Your task to perform on an android device: toggle priority inbox in the gmail app Image 0: 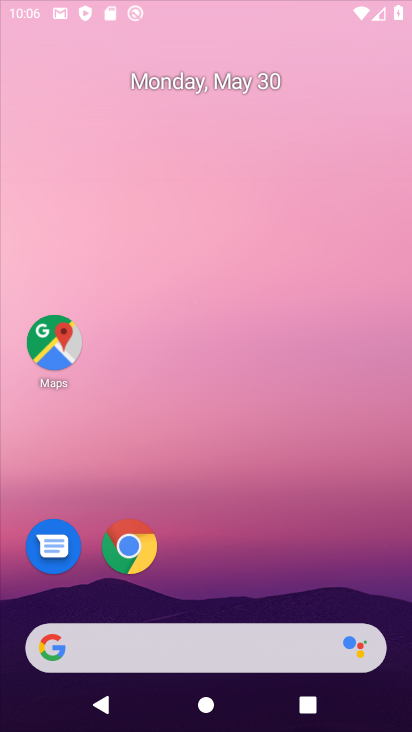
Step 0: press home button
Your task to perform on an android device: toggle priority inbox in the gmail app Image 1: 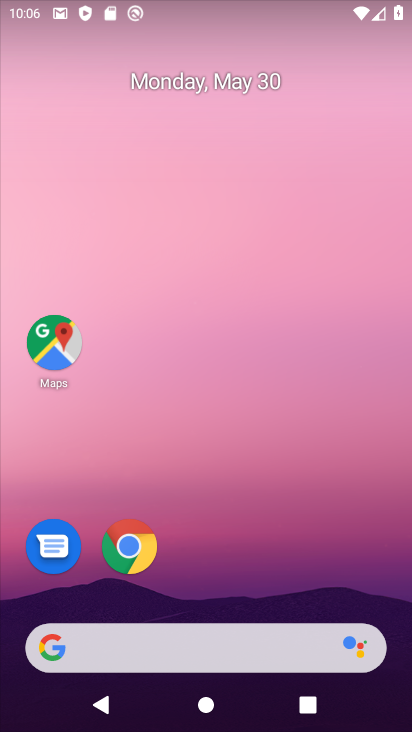
Step 1: drag from (216, 587) to (193, 47)
Your task to perform on an android device: toggle priority inbox in the gmail app Image 2: 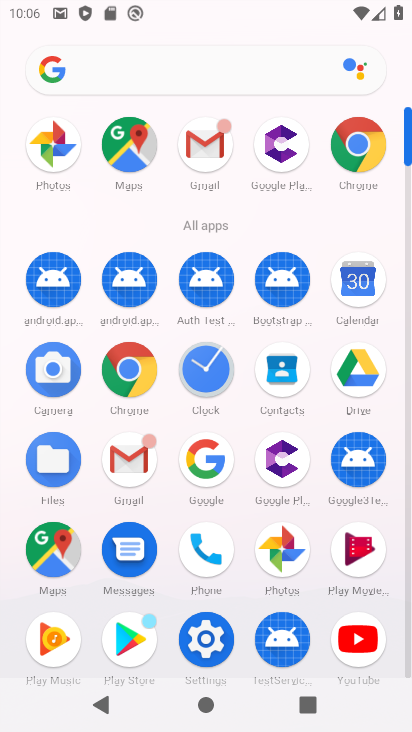
Step 2: click (202, 138)
Your task to perform on an android device: toggle priority inbox in the gmail app Image 3: 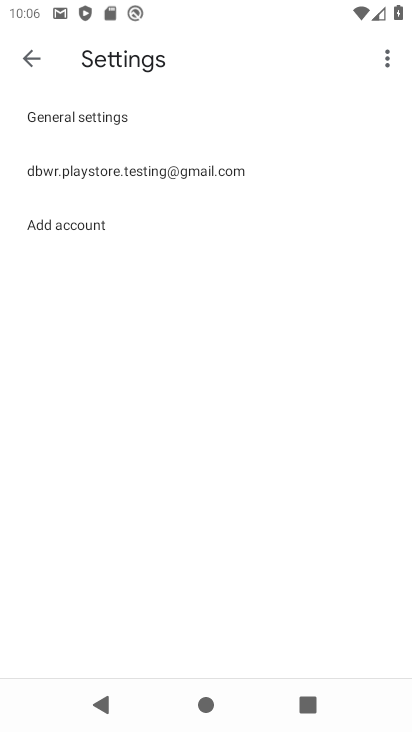
Step 3: click (29, 60)
Your task to perform on an android device: toggle priority inbox in the gmail app Image 4: 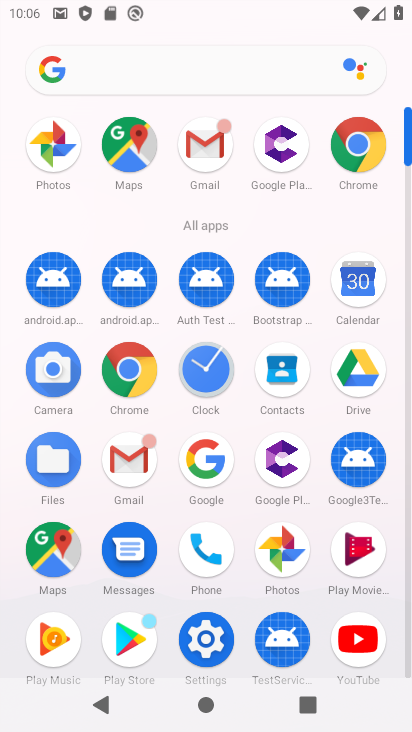
Step 4: click (125, 453)
Your task to perform on an android device: toggle priority inbox in the gmail app Image 5: 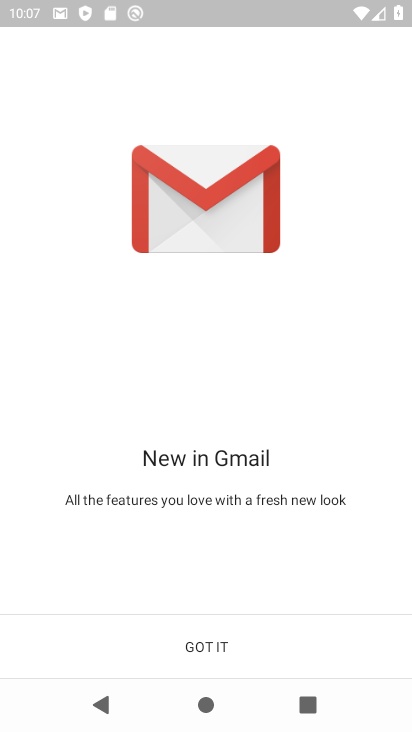
Step 5: click (214, 656)
Your task to perform on an android device: toggle priority inbox in the gmail app Image 6: 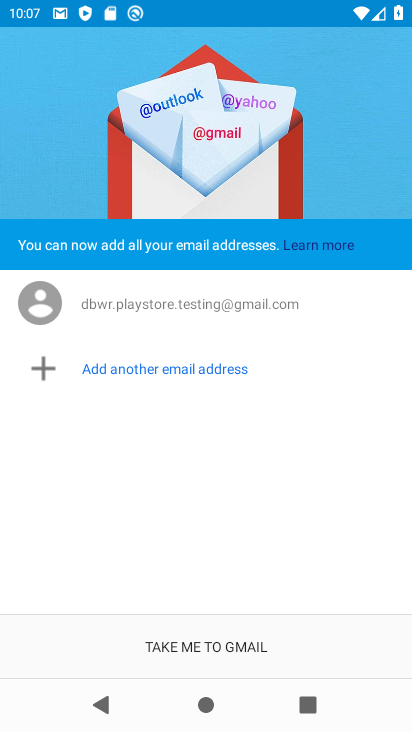
Step 6: click (200, 648)
Your task to perform on an android device: toggle priority inbox in the gmail app Image 7: 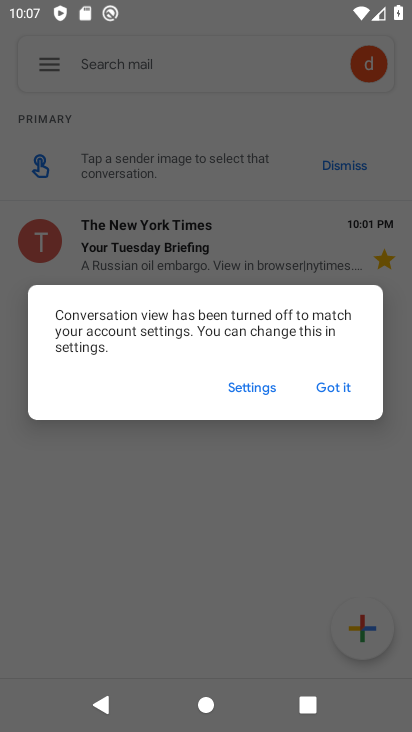
Step 7: click (342, 384)
Your task to perform on an android device: toggle priority inbox in the gmail app Image 8: 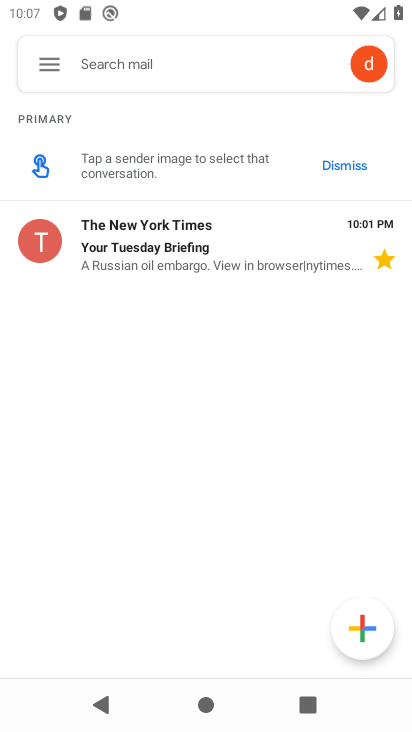
Step 8: click (43, 69)
Your task to perform on an android device: toggle priority inbox in the gmail app Image 9: 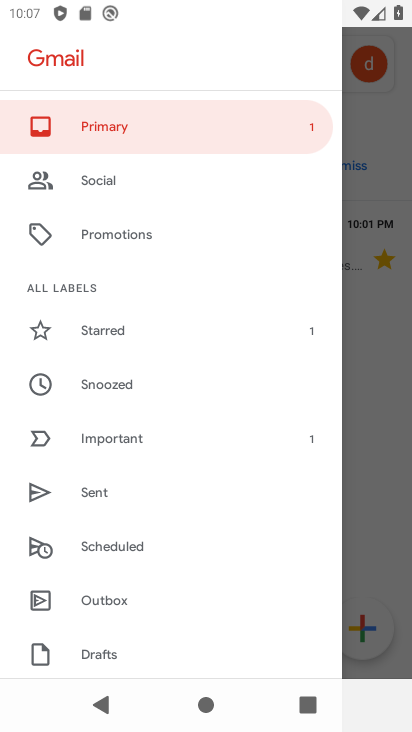
Step 9: drag from (154, 643) to (160, 76)
Your task to perform on an android device: toggle priority inbox in the gmail app Image 10: 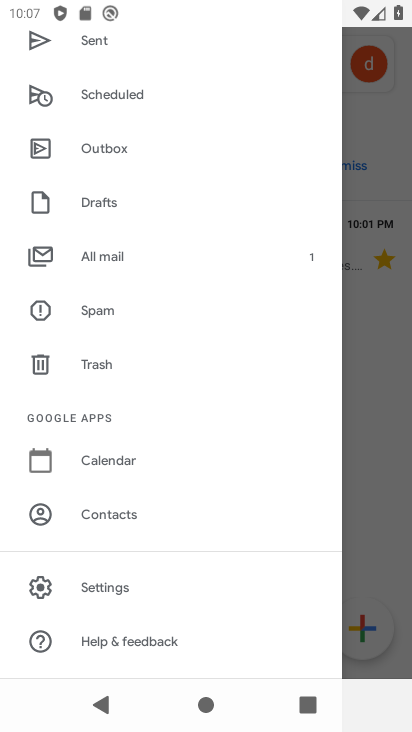
Step 10: click (143, 587)
Your task to perform on an android device: toggle priority inbox in the gmail app Image 11: 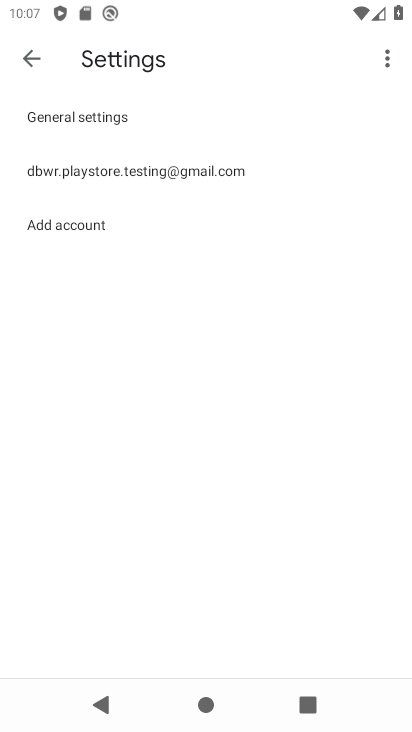
Step 11: click (186, 171)
Your task to perform on an android device: toggle priority inbox in the gmail app Image 12: 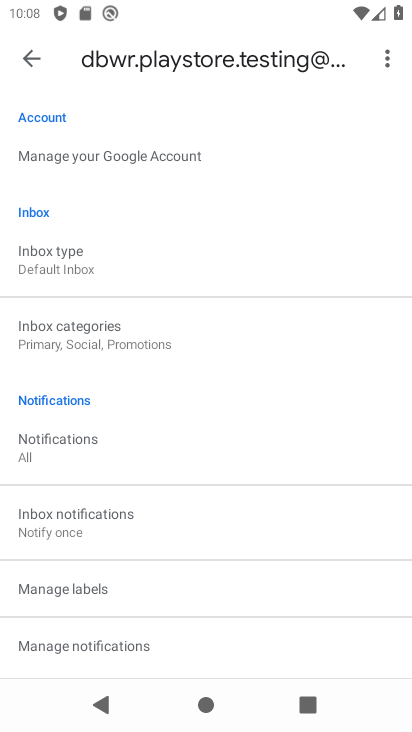
Step 12: click (114, 257)
Your task to perform on an android device: toggle priority inbox in the gmail app Image 13: 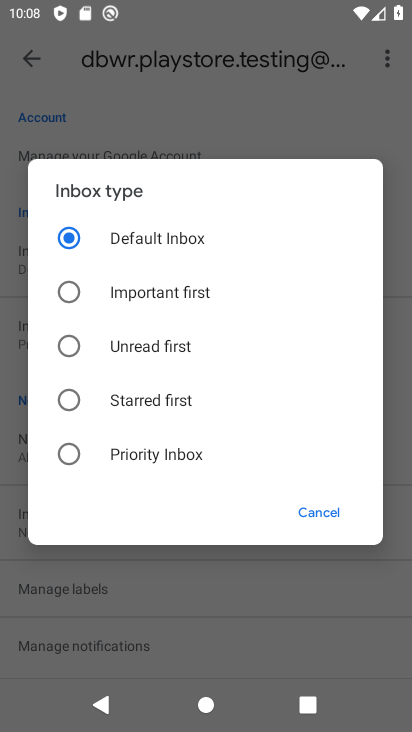
Step 13: click (72, 455)
Your task to perform on an android device: toggle priority inbox in the gmail app Image 14: 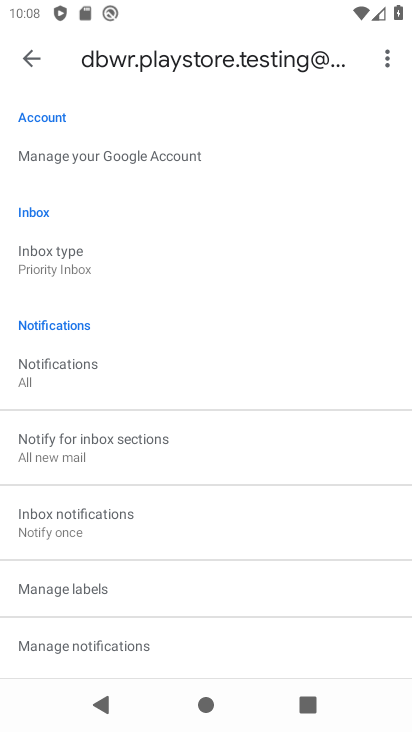
Step 14: task complete